Your task to perform on an android device: Search for seafood restaurants on Google Maps Image 0: 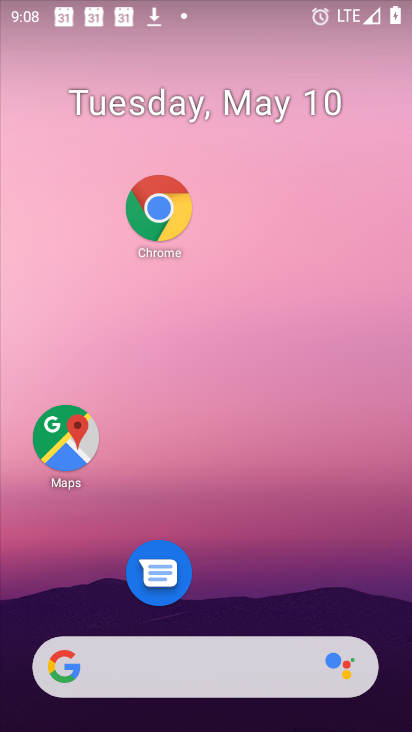
Step 0: drag from (271, 691) to (262, 245)
Your task to perform on an android device: Search for seafood restaurants on Google Maps Image 1: 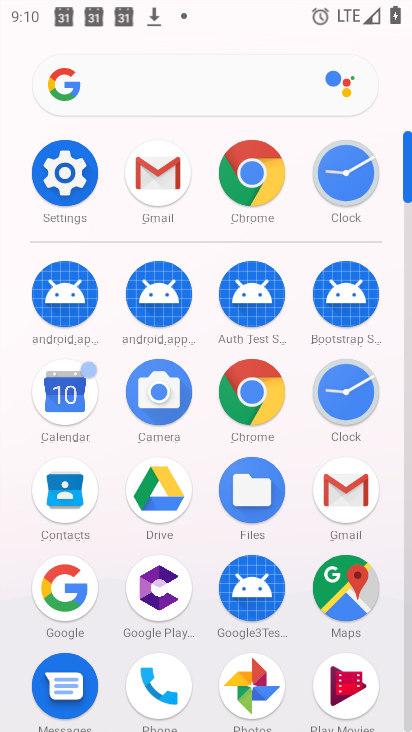
Step 1: click (338, 580)
Your task to perform on an android device: Search for seafood restaurants on Google Maps Image 2: 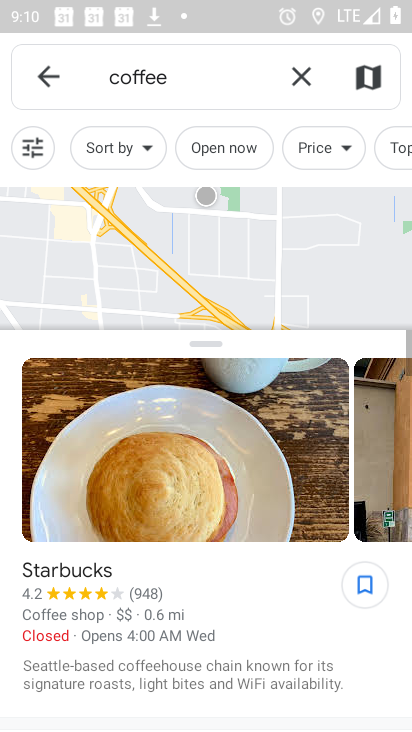
Step 2: click (305, 70)
Your task to perform on an android device: Search for seafood restaurants on Google Maps Image 3: 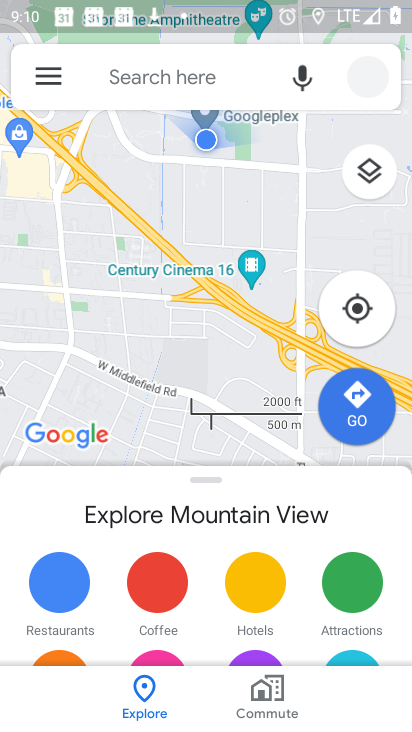
Step 3: click (164, 80)
Your task to perform on an android device: Search for seafood restaurants on Google Maps Image 4: 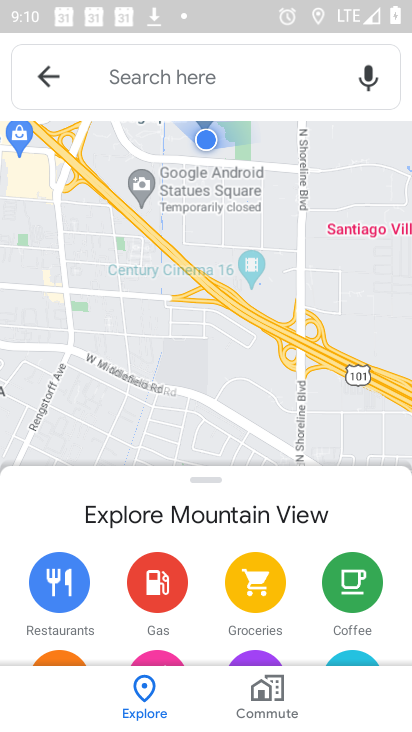
Step 4: click (162, 81)
Your task to perform on an android device: Search for seafood restaurants on Google Maps Image 5: 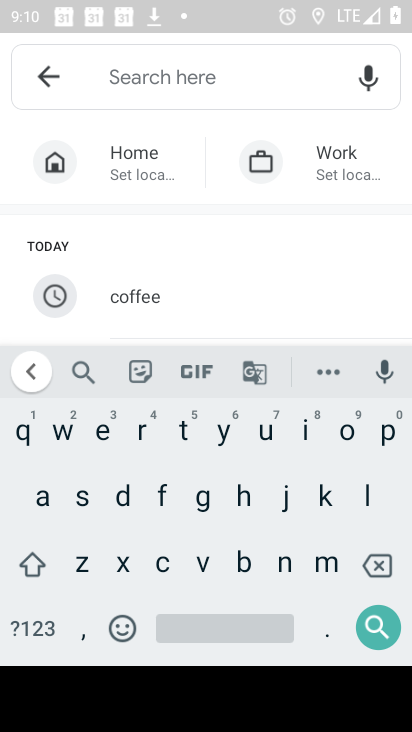
Step 5: click (80, 490)
Your task to perform on an android device: Search for seafood restaurants on Google Maps Image 6: 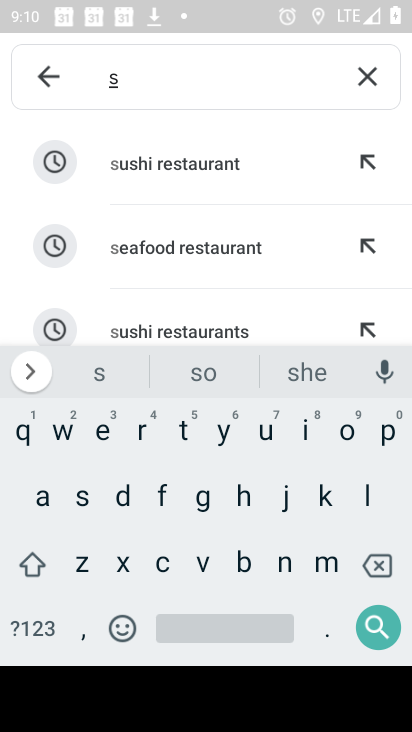
Step 6: click (158, 246)
Your task to perform on an android device: Search for seafood restaurants on Google Maps Image 7: 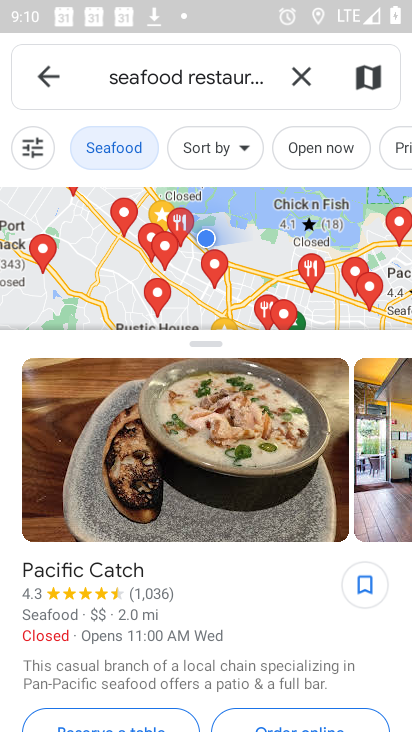
Step 7: task complete